Your task to perform on an android device: What's the weather going to be tomorrow? Image 0: 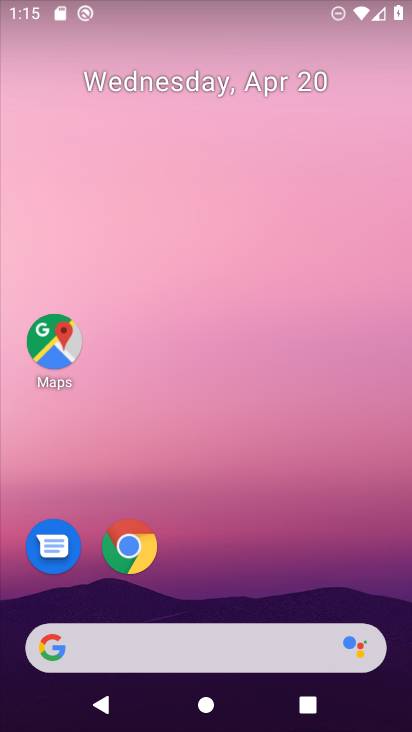
Step 0: drag from (63, 223) to (411, 210)
Your task to perform on an android device: What's the weather going to be tomorrow? Image 1: 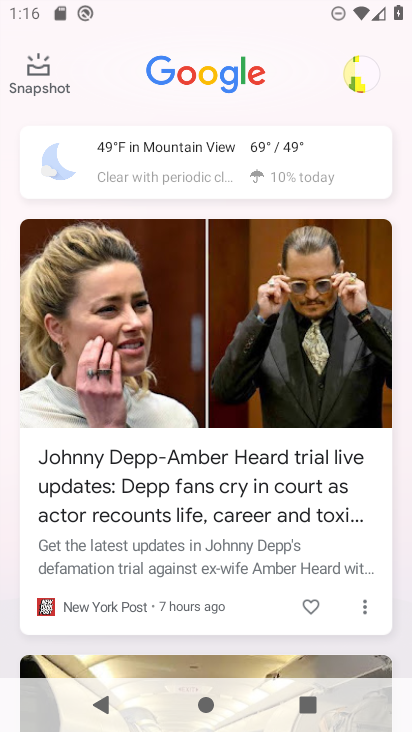
Step 1: click (163, 167)
Your task to perform on an android device: What's the weather going to be tomorrow? Image 2: 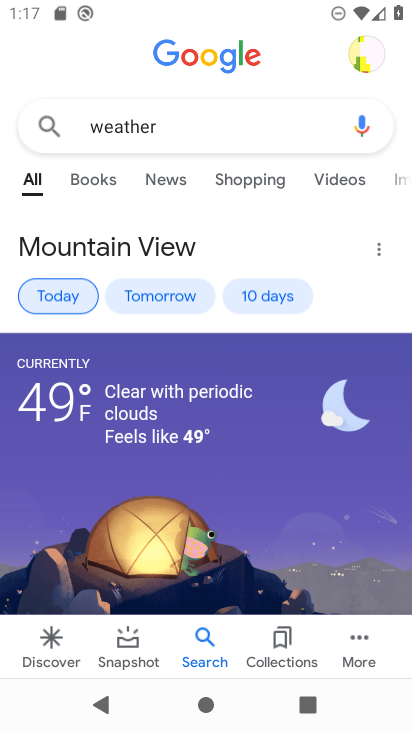
Step 2: click (166, 293)
Your task to perform on an android device: What's the weather going to be tomorrow? Image 3: 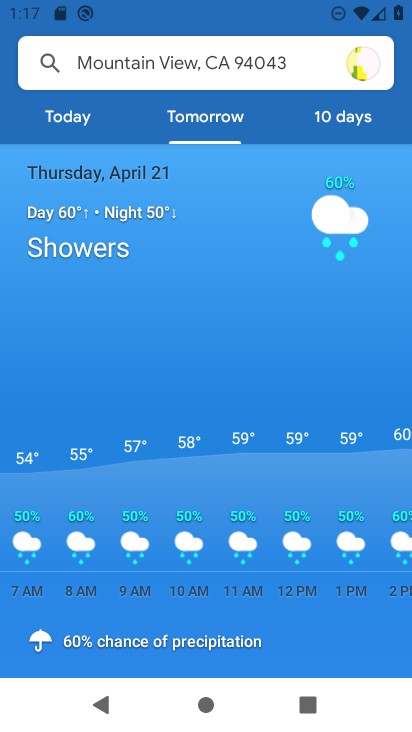
Step 3: task complete